Your task to perform on an android device: toggle notification dots Image 0: 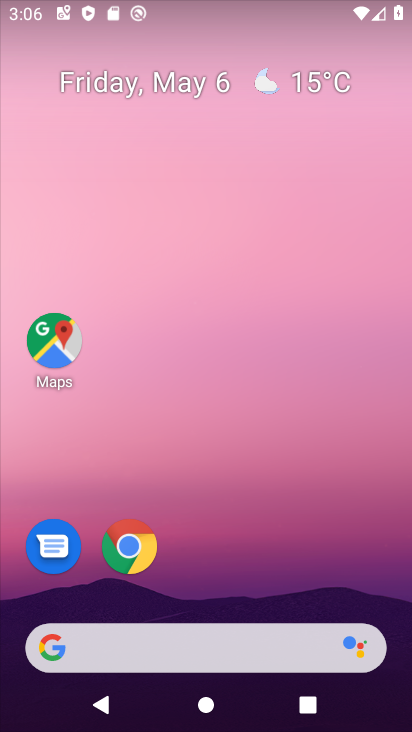
Step 0: drag from (188, 622) to (227, 348)
Your task to perform on an android device: toggle notification dots Image 1: 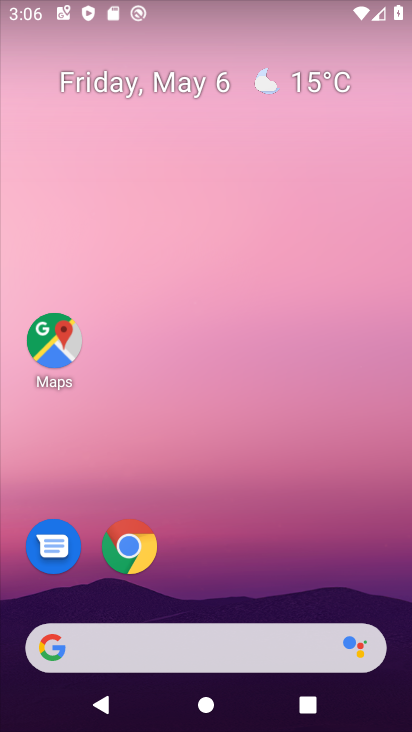
Step 1: drag from (165, 624) to (215, 129)
Your task to perform on an android device: toggle notification dots Image 2: 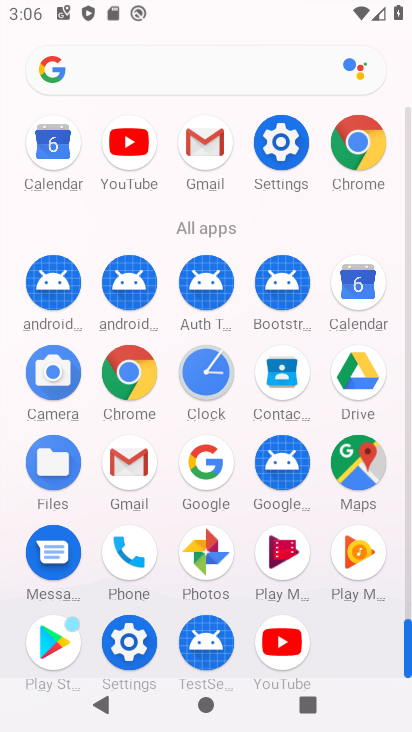
Step 2: click (281, 127)
Your task to perform on an android device: toggle notification dots Image 3: 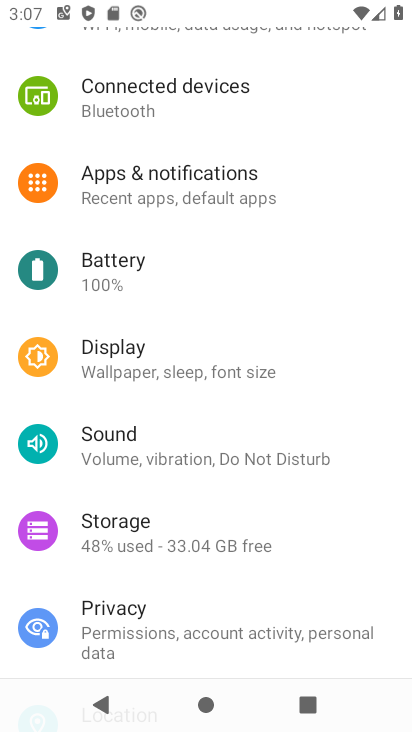
Step 3: click (163, 194)
Your task to perform on an android device: toggle notification dots Image 4: 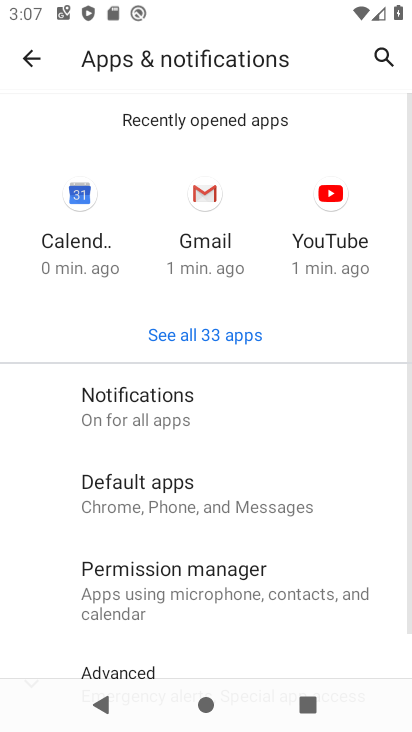
Step 4: click (128, 403)
Your task to perform on an android device: toggle notification dots Image 5: 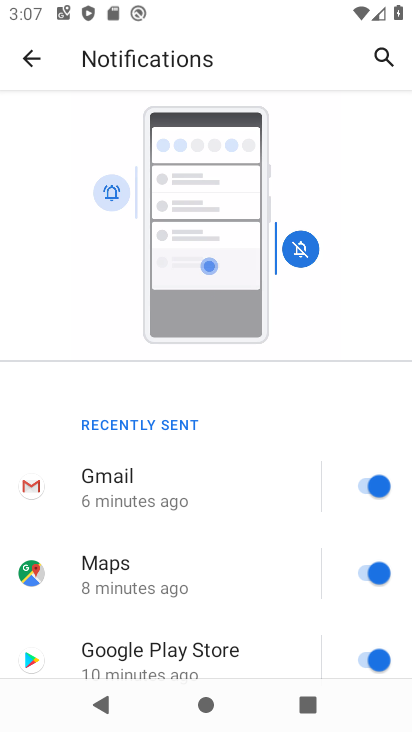
Step 5: drag from (177, 676) to (177, 399)
Your task to perform on an android device: toggle notification dots Image 6: 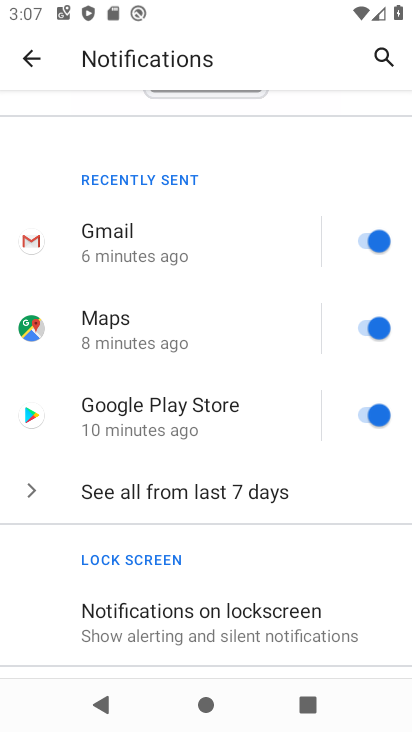
Step 6: click (154, 617)
Your task to perform on an android device: toggle notification dots Image 7: 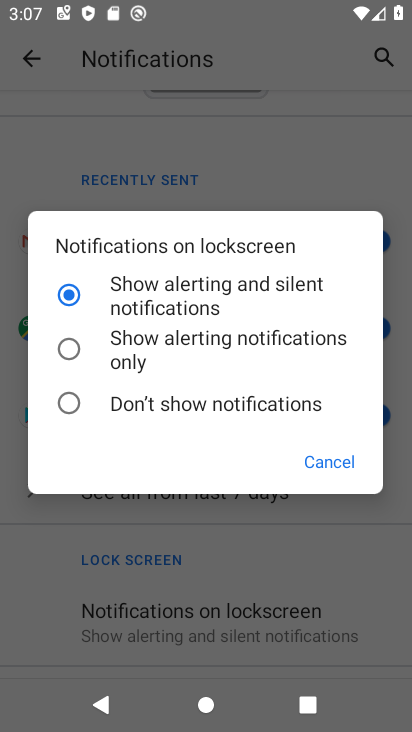
Step 7: click (315, 460)
Your task to perform on an android device: toggle notification dots Image 8: 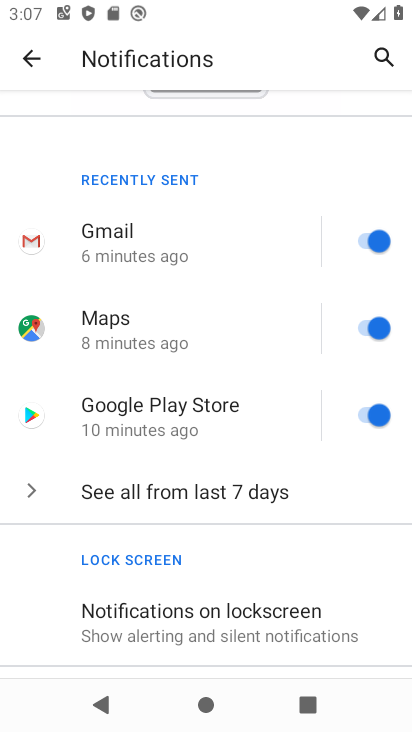
Step 8: drag from (107, 623) to (108, 348)
Your task to perform on an android device: toggle notification dots Image 9: 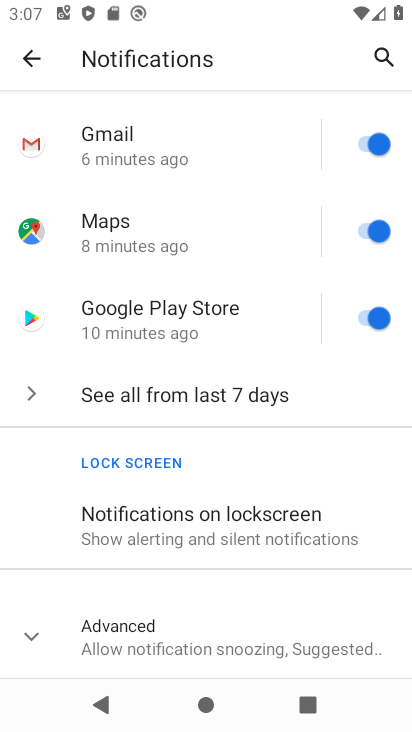
Step 9: click (139, 649)
Your task to perform on an android device: toggle notification dots Image 10: 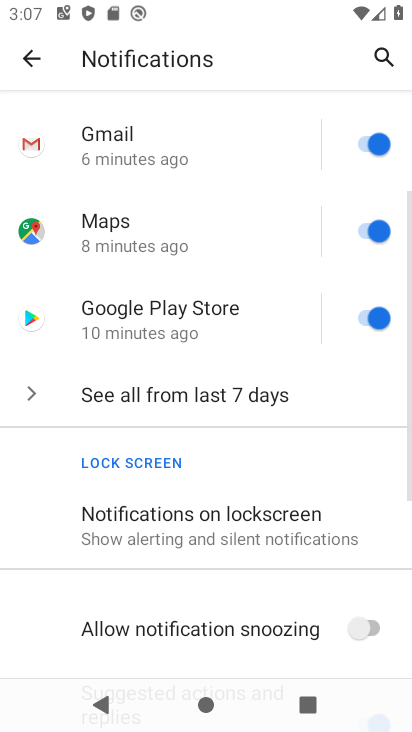
Step 10: drag from (154, 647) to (163, 353)
Your task to perform on an android device: toggle notification dots Image 11: 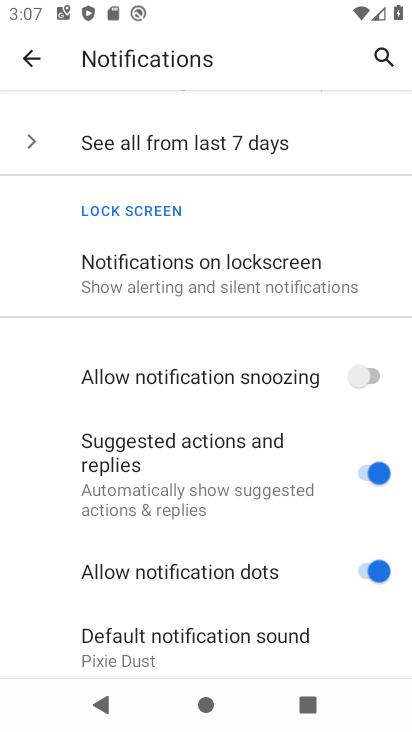
Step 11: drag from (168, 643) to (170, 331)
Your task to perform on an android device: toggle notification dots Image 12: 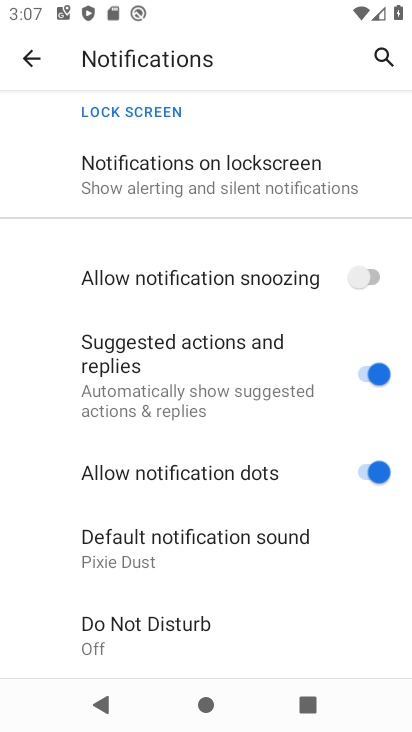
Step 12: click (369, 474)
Your task to perform on an android device: toggle notification dots Image 13: 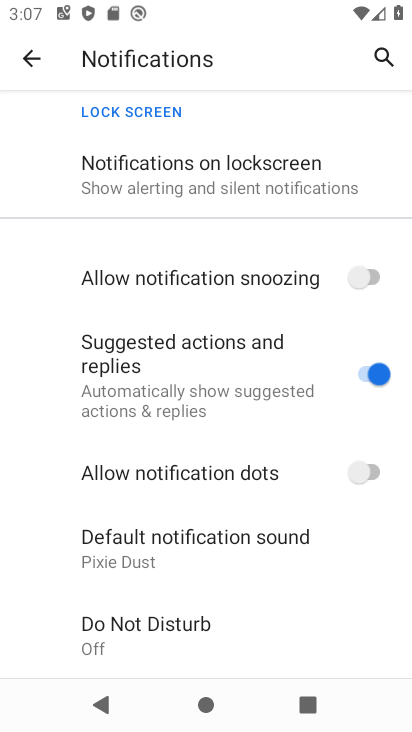
Step 13: task complete